Your task to perform on an android device: Open sound settings Image 0: 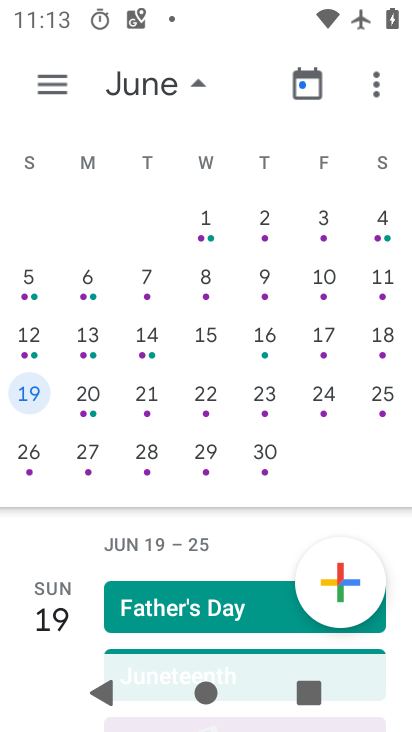
Step 0: press home button
Your task to perform on an android device: Open sound settings Image 1: 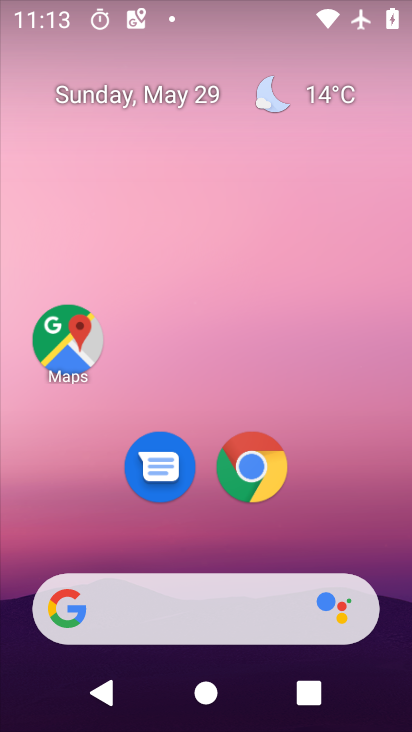
Step 1: drag from (189, 546) to (196, 132)
Your task to perform on an android device: Open sound settings Image 2: 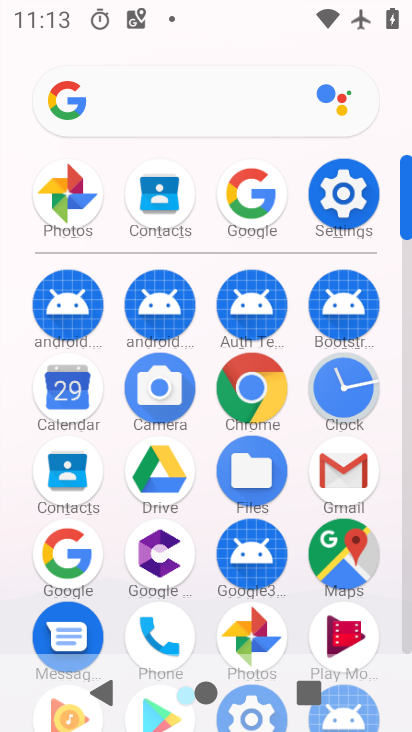
Step 2: click (334, 199)
Your task to perform on an android device: Open sound settings Image 3: 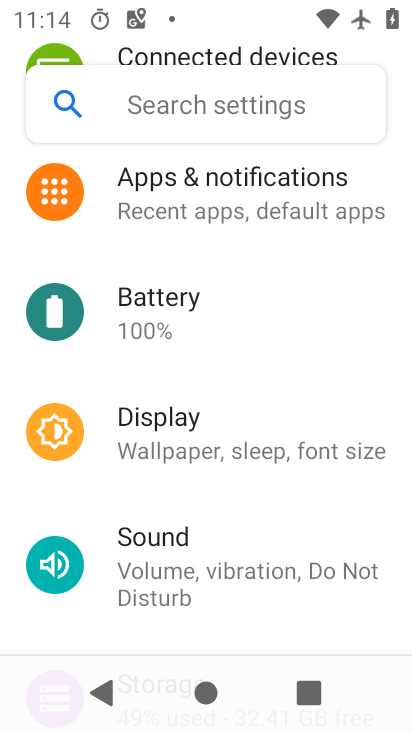
Step 3: drag from (228, 297) to (270, 328)
Your task to perform on an android device: Open sound settings Image 4: 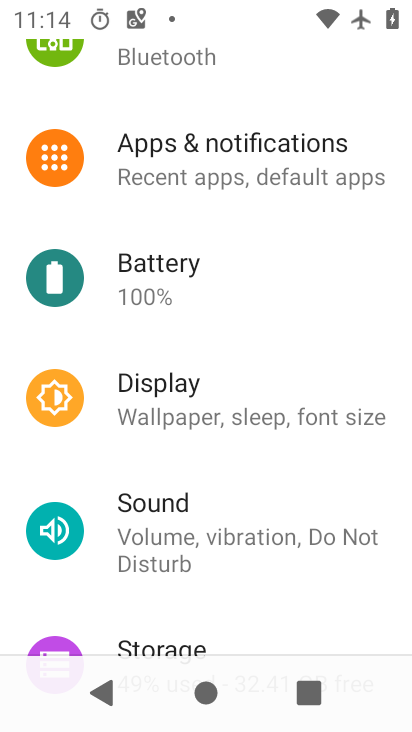
Step 4: click (244, 507)
Your task to perform on an android device: Open sound settings Image 5: 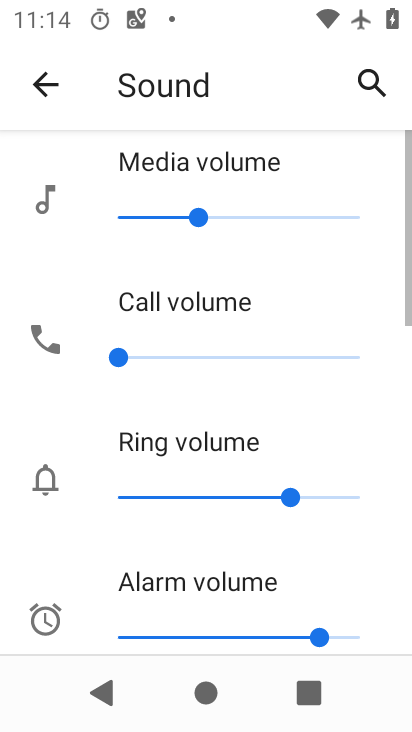
Step 5: task complete